Your task to perform on an android device: set an alarm Image 0: 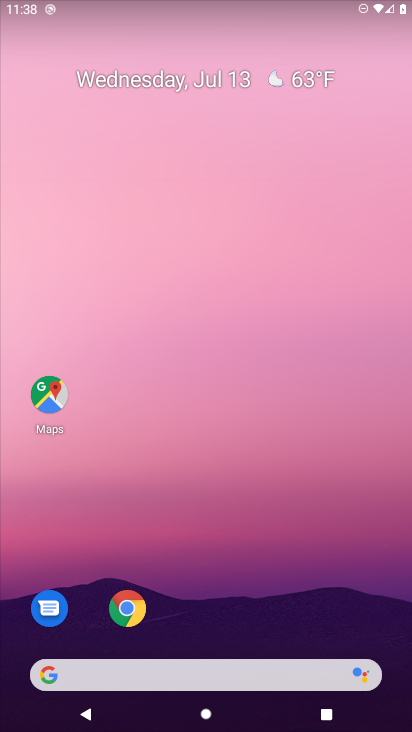
Step 0: press home button
Your task to perform on an android device: set an alarm Image 1: 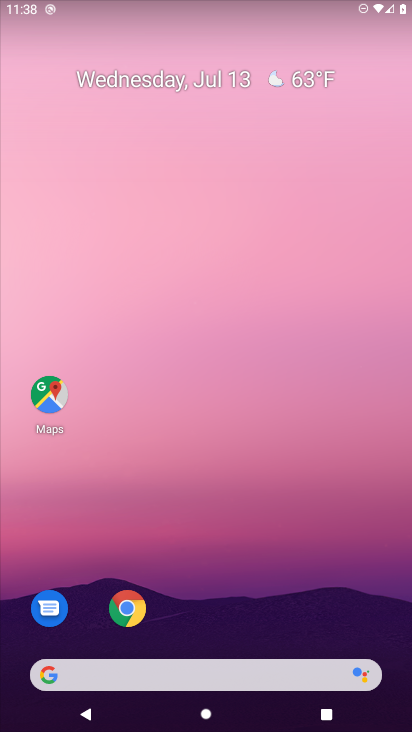
Step 1: drag from (282, 557) to (296, 71)
Your task to perform on an android device: set an alarm Image 2: 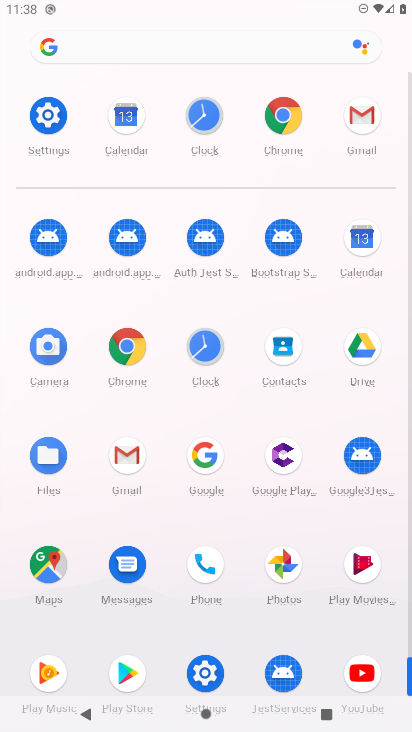
Step 2: click (211, 353)
Your task to perform on an android device: set an alarm Image 3: 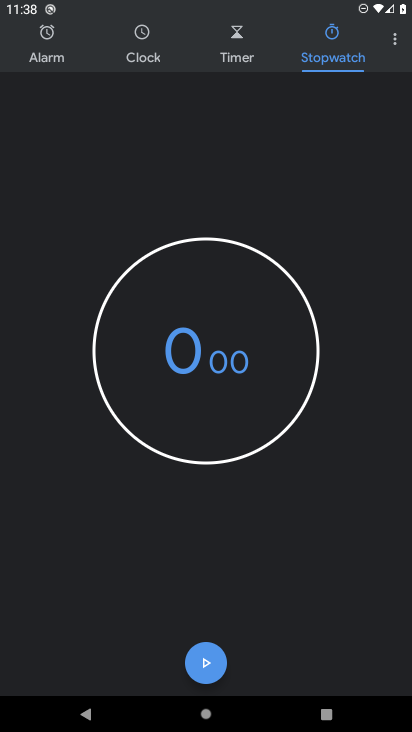
Step 3: click (47, 33)
Your task to perform on an android device: set an alarm Image 4: 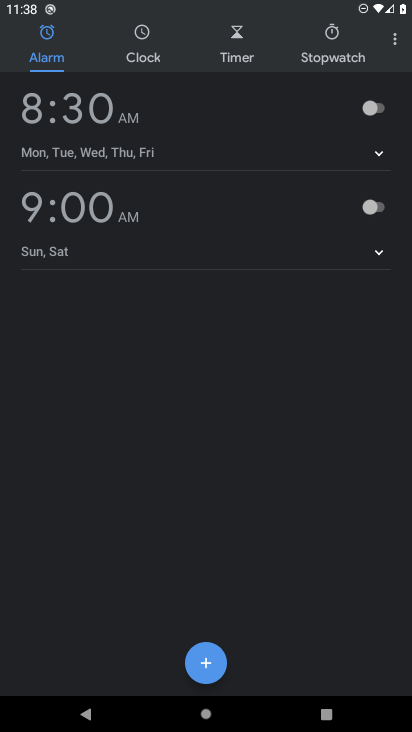
Step 4: click (206, 674)
Your task to perform on an android device: set an alarm Image 5: 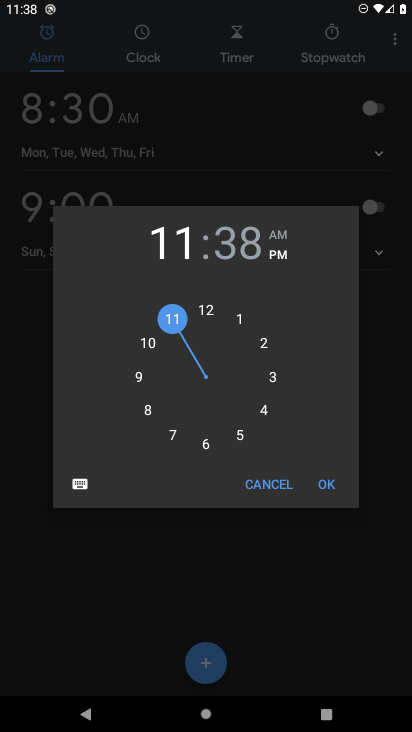
Step 5: click (193, 436)
Your task to perform on an android device: set an alarm Image 6: 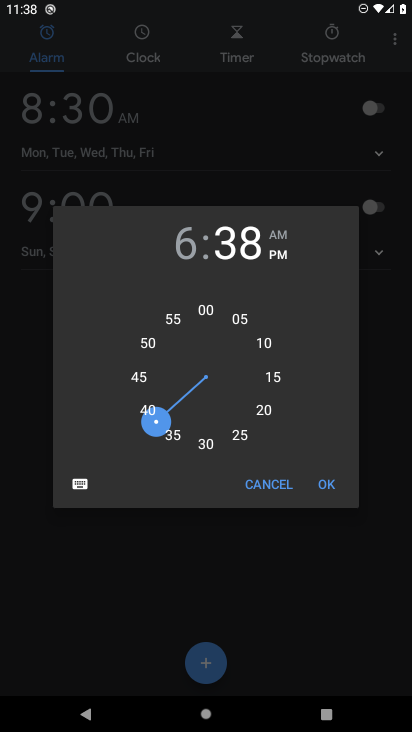
Step 6: task complete